Your task to perform on an android device: Go to sound settings Image 0: 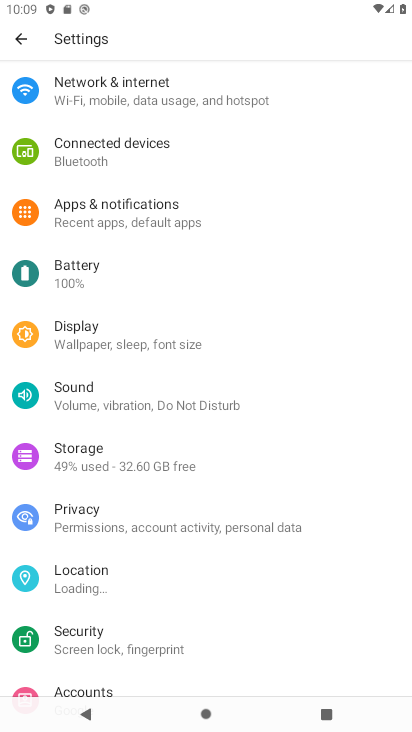
Step 0: click (160, 404)
Your task to perform on an android device: Go to sound settings Image 1: 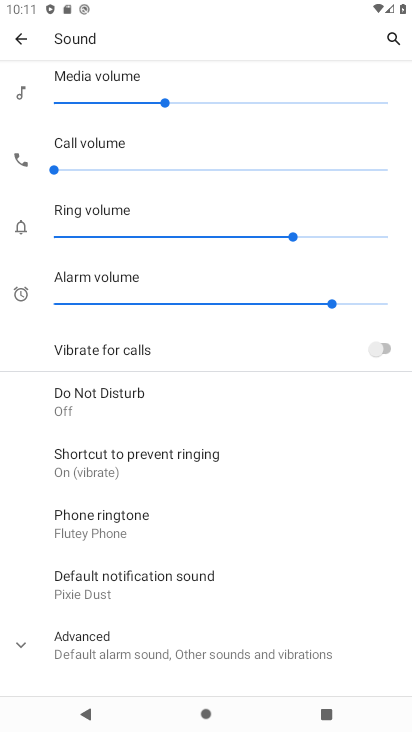
Step 1: task complete